Your task to perform on an android device: clear all cookies in the chrome app Image 0: 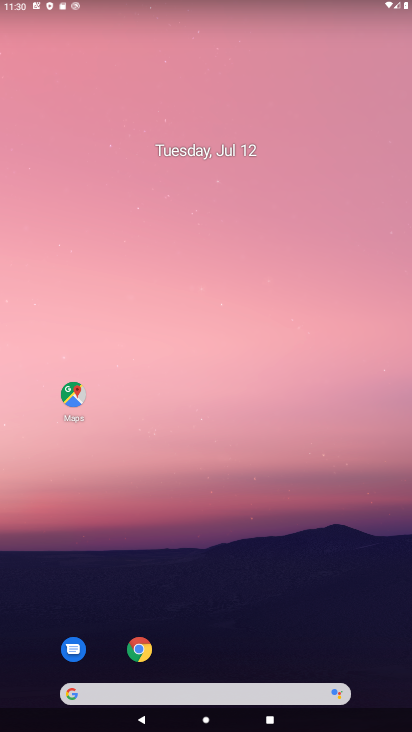
Step 0: click (138, 648)
Your task to perform on an android device: clear all cookies in the chrome app Image 1: 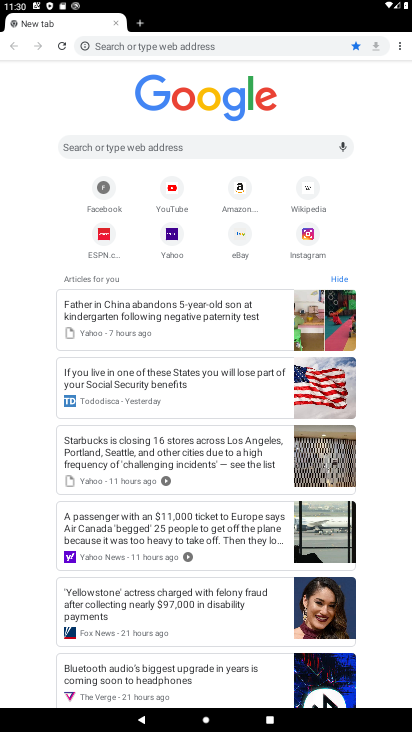
Step 1: click (401, 51)
Your task to perform on an android device: clear all cookies in the chrome app Image 2: 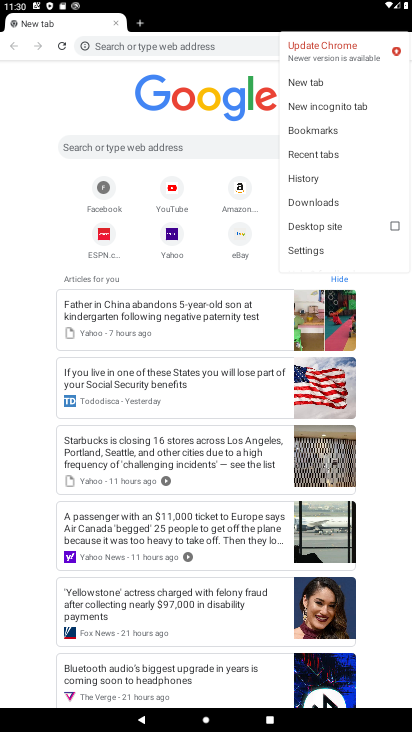
Step 2: click (302, 172)
Your task to perform on an android device: clear all cookies in the chrome app Image 3: 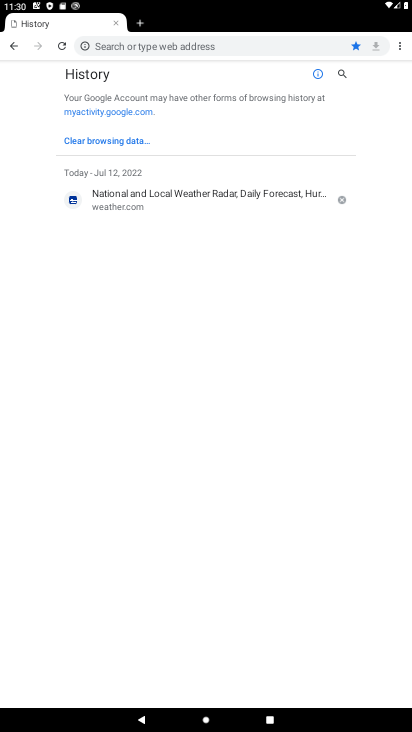
Step 3: click (74, 130)
Your task to perform on an android device: clear all cookies in the chrome app Image 4: 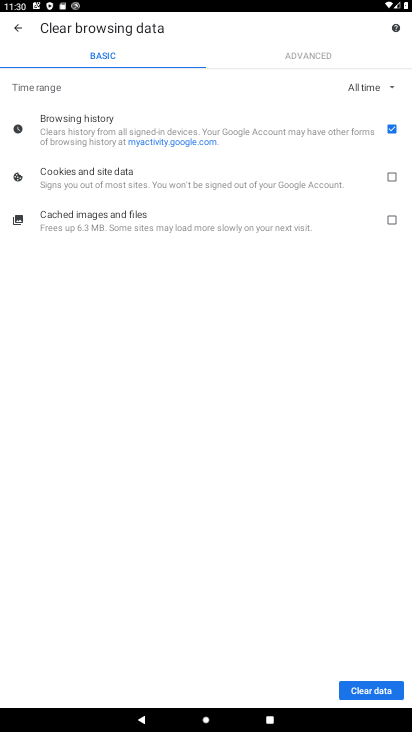
Step 4: click (388, 176)
Your task to perform on an android device: clear all cookies in the chrome app Image 5: 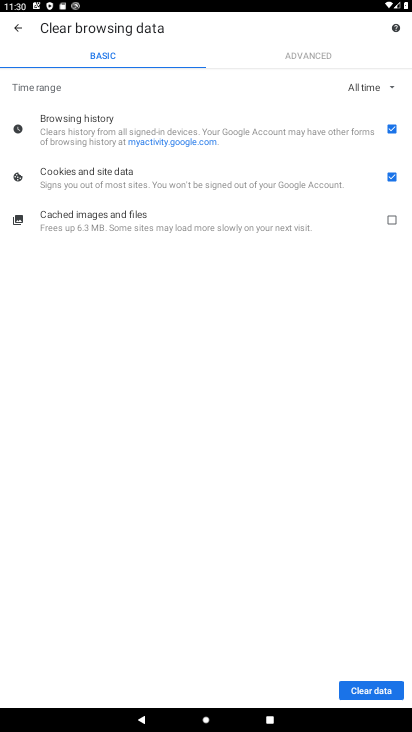
Step 5: click (389, 128)
Your task to perform on an android device: clear all cookies in the chrome app Image 6: 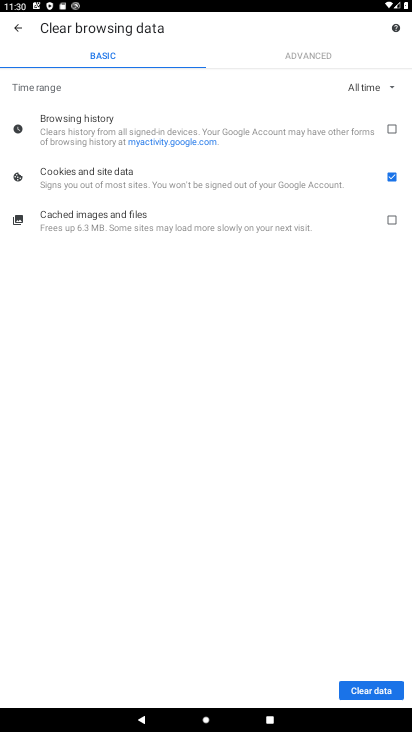
Step 6: click (370, 687)
Your task to perform on an android device: clear all cookies in the chrome app Image 7: 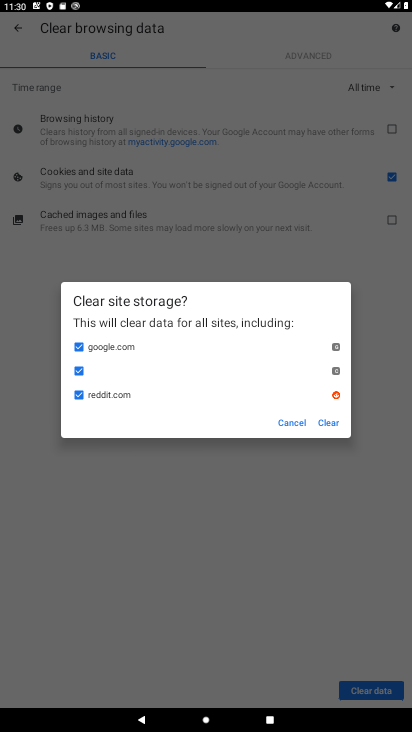
Step 7: click (326, 421)
Your task to perform on an android device: clear all cookies in the chrome app Image 8: 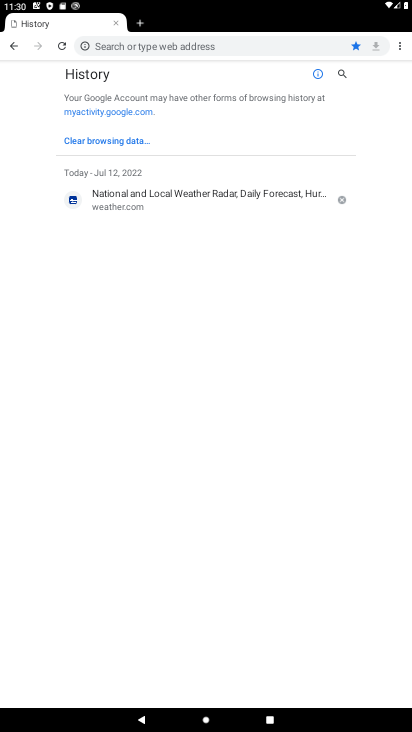
Step 8: task complete